Your task to perform on an android device: Search for custom wallets on etsy. Image 0: 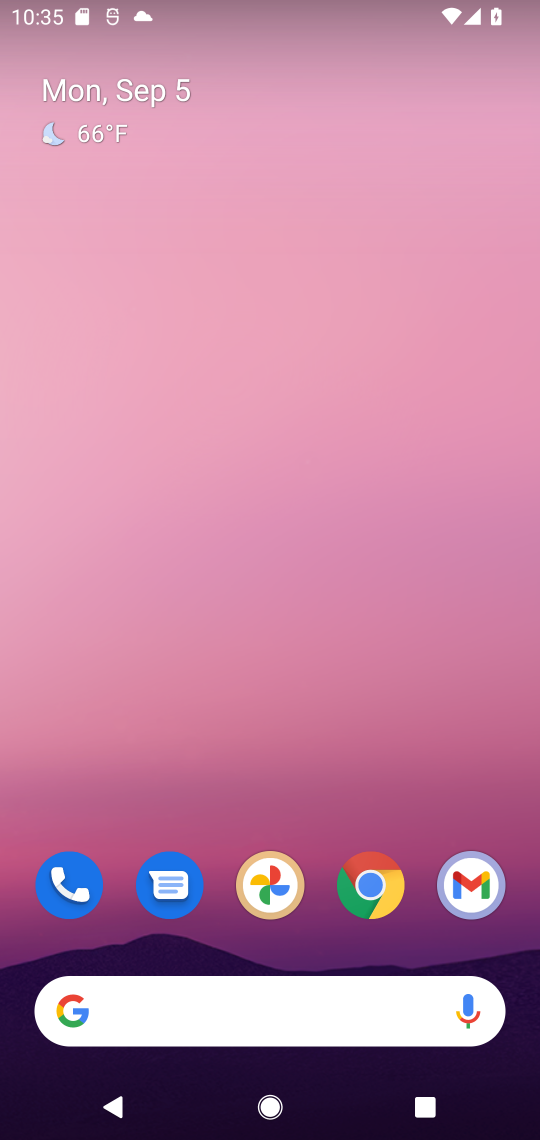
Step 0: click (377, 885)
Your task to perform on an android device: Search for custom wallets on etsy. Image 1: 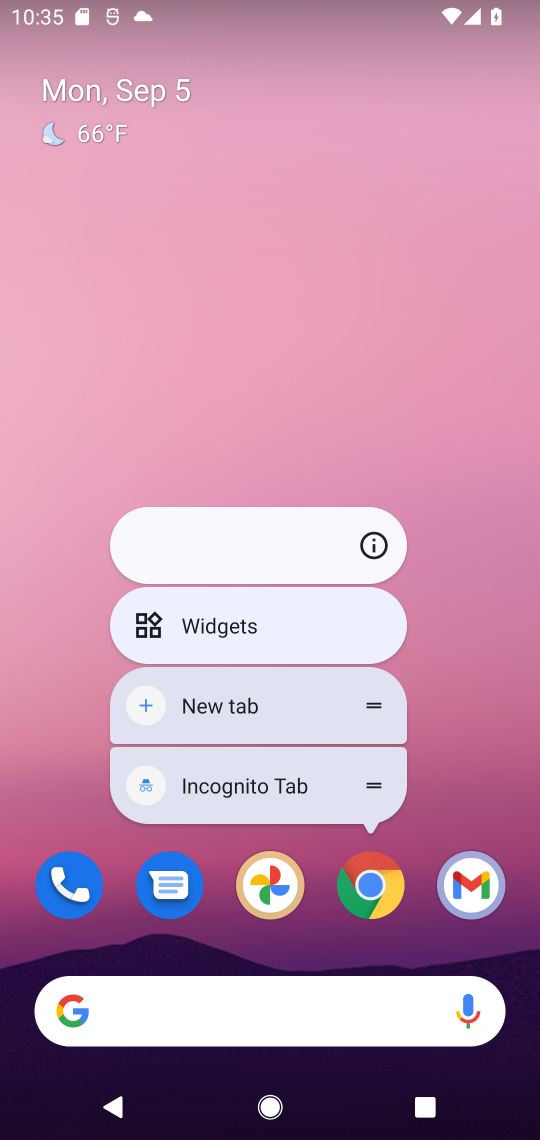
Step 1: click (371, 878)
Your task to perform on an android device: Search for custom wallets on etsy. Image 2: 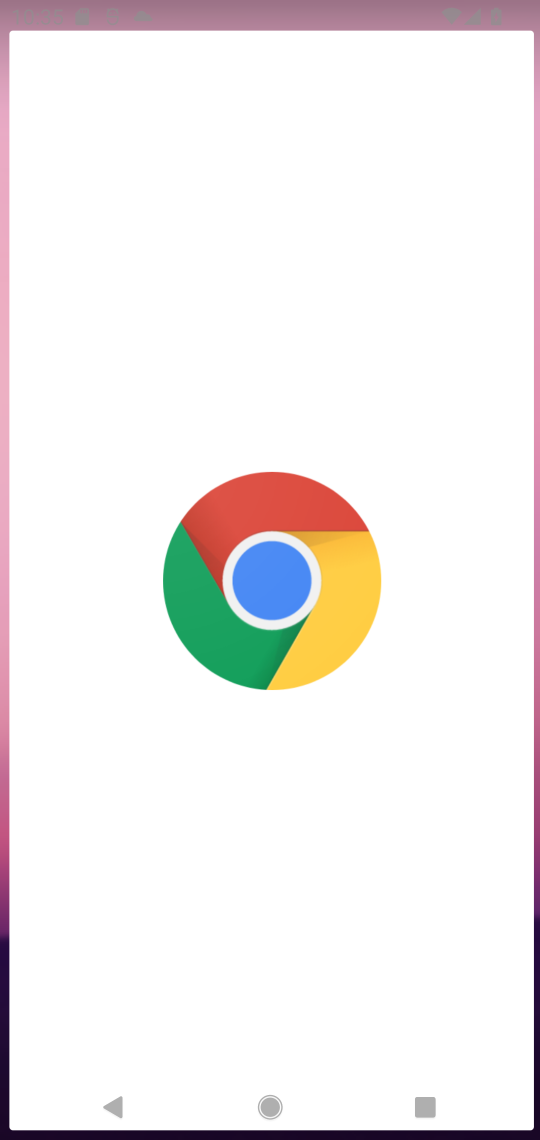
Step 2: click (372, 877)
Your task to perform on an android device: Search for custom wallets on etsy. Image 3: 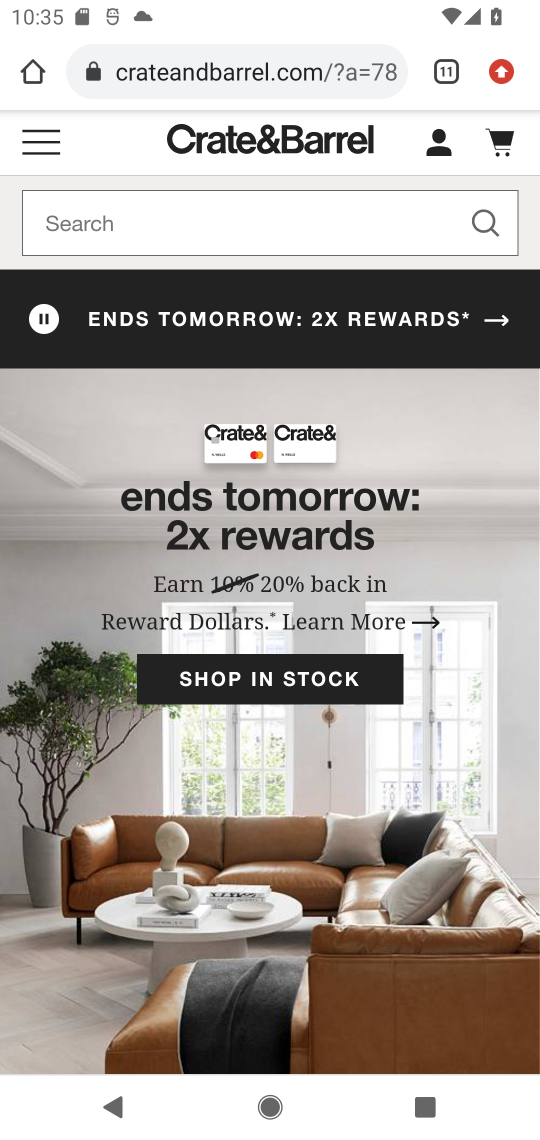
Step 3: click (417, 217)
Your task to perform on an android device: Search for custom wallets on etsy. Image 4: 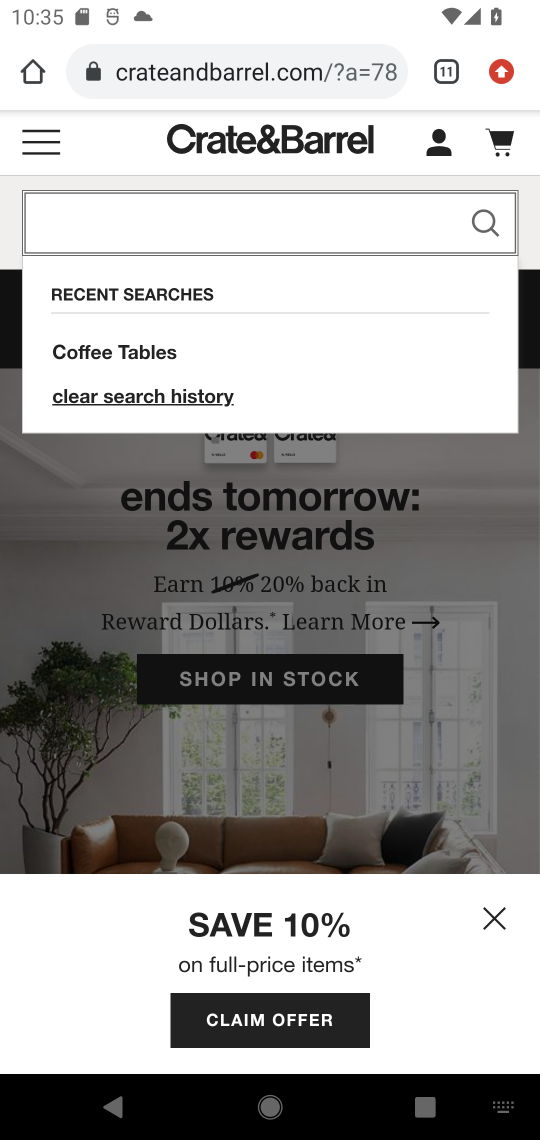
Step 4: type "custom wallets"
Your task to perform on an android device: Search for custom wallets on etsy. Image 5: 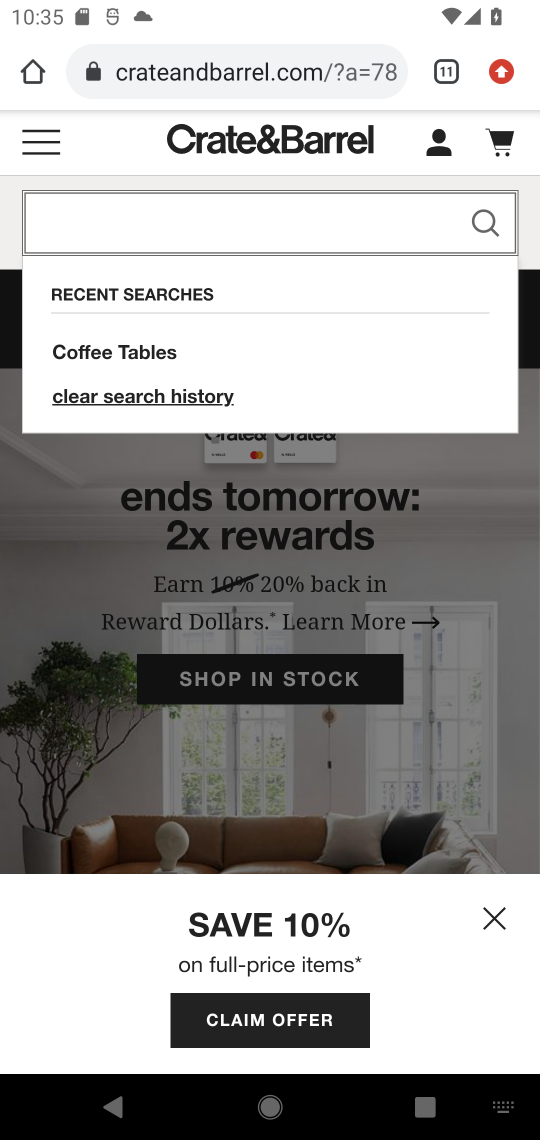
Step 5: type ""
Your task to perform on an android device: Search for custom wallets on etsy. Image 6: 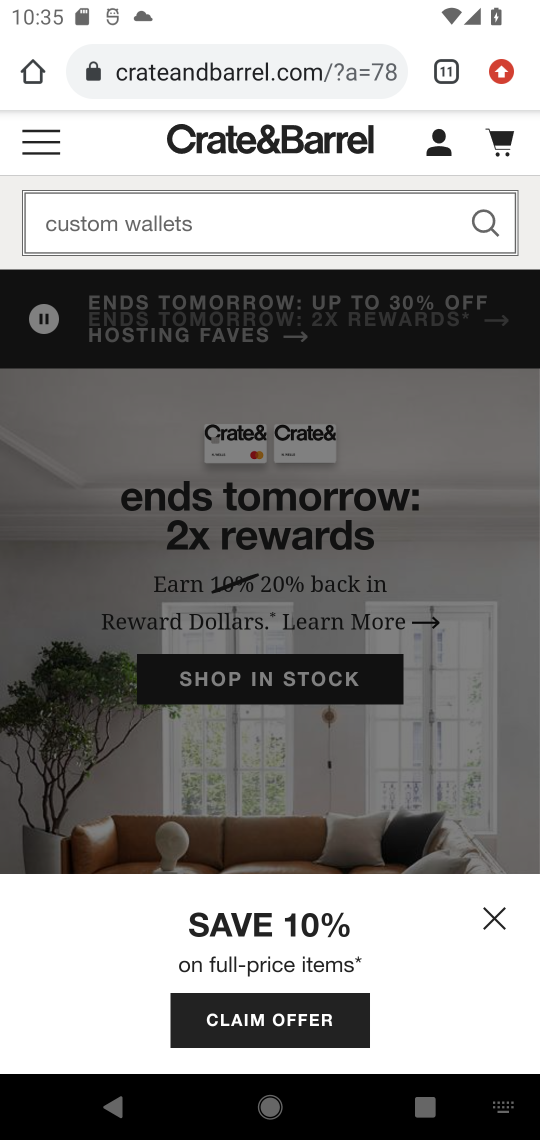
Step 6: click (480, 216)
Your task to perform on an android device: Search for custom wallets on etsy. Image 7: 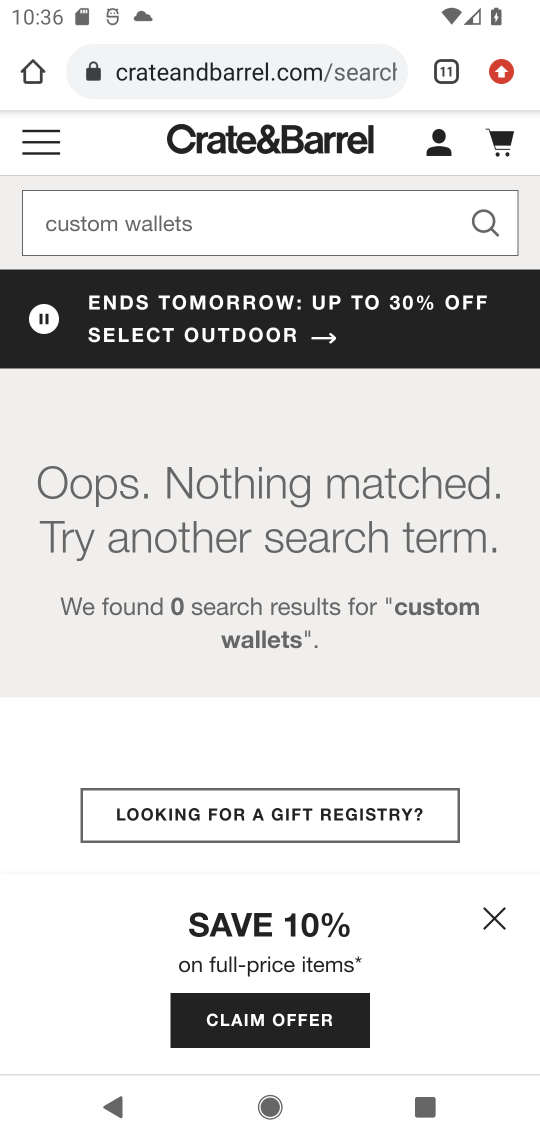
Step 7: drag from (500, 71) to (266, 253)
Your task to perform on an android device: Search for custom wallets on etsy. Image 8: 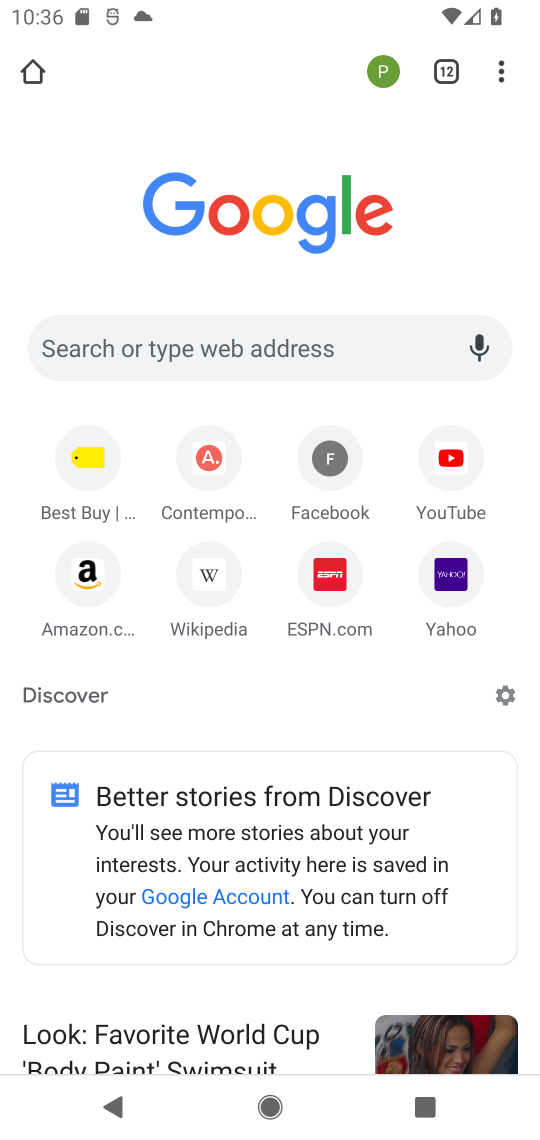
Step 8: click (188, 341)
Your task to perform on an android device: Search for custom wallets on etsy. Image 9: 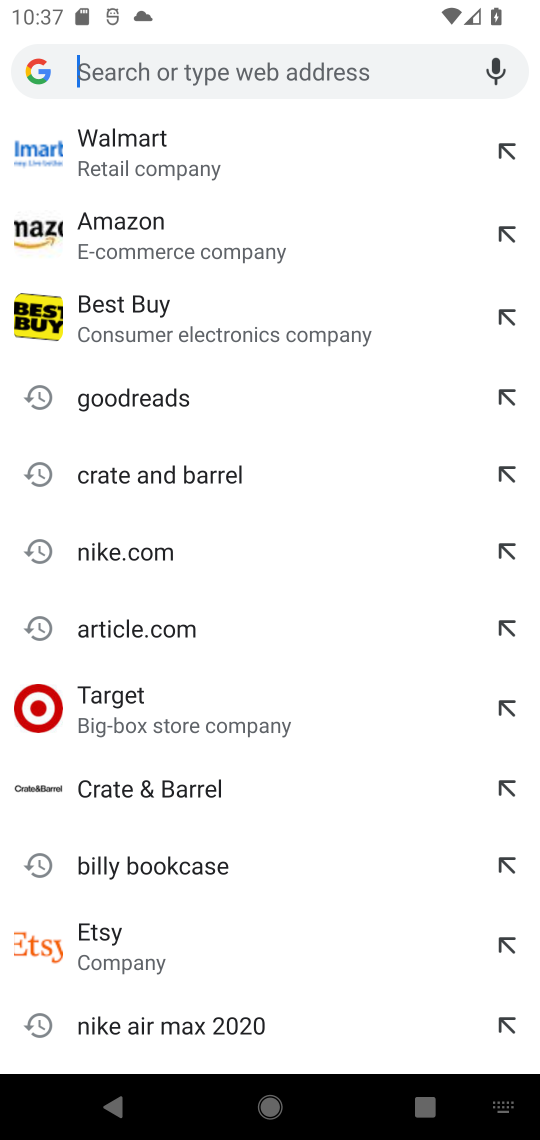
Step 9: type "etsy"
Your task to perform on an android device: Search for custom wallets on etsy. Image 10: 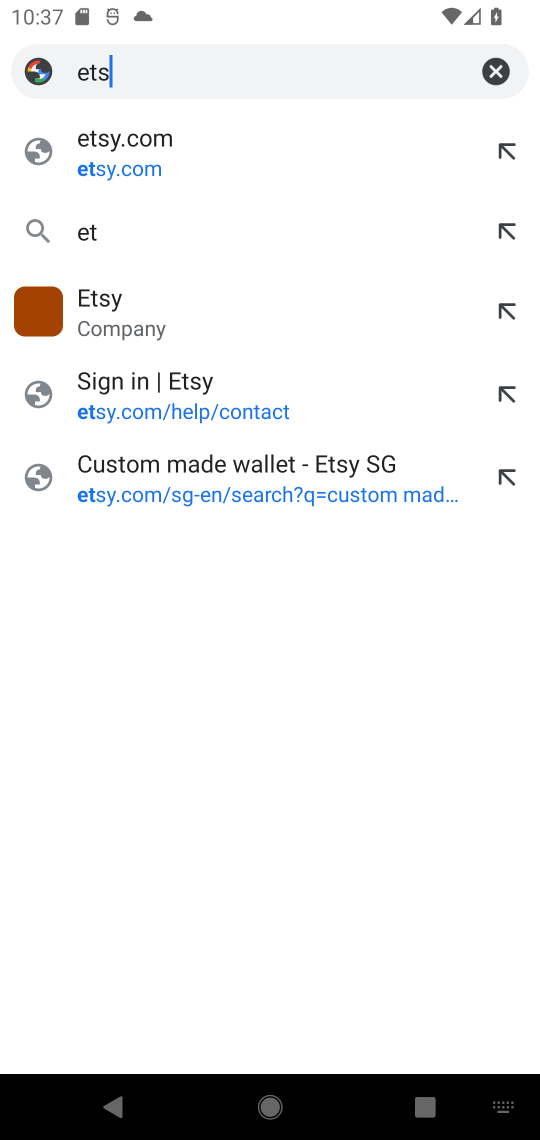
Step 10: type ""
Your task to perform on an android device: Search for custom wallets on etsy. Image 11: 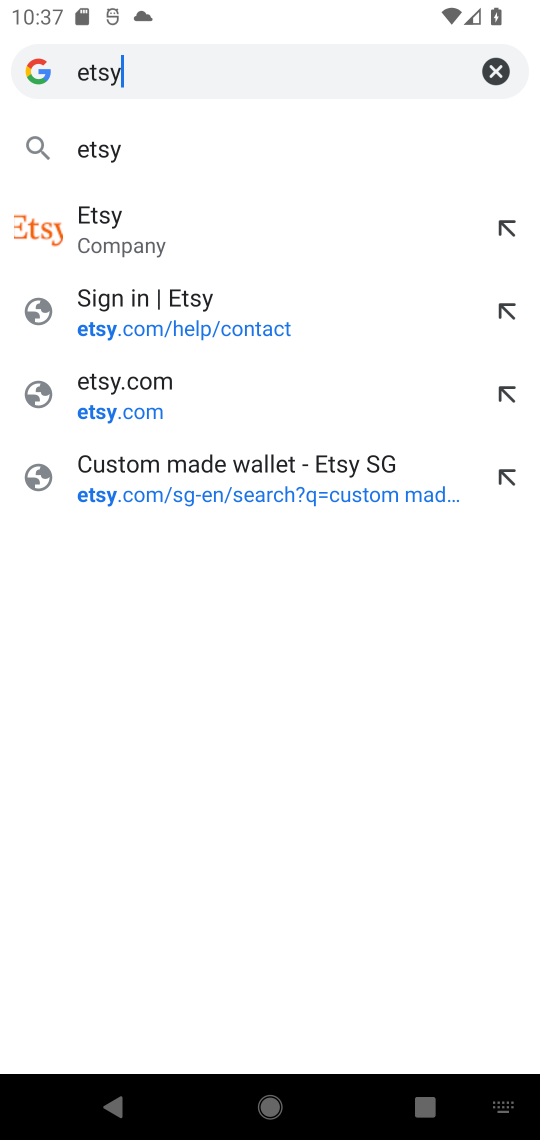
Step 11: click (103, 145)
Your task to perform on an android device: Search for custom wallets on etsy. Image 12: 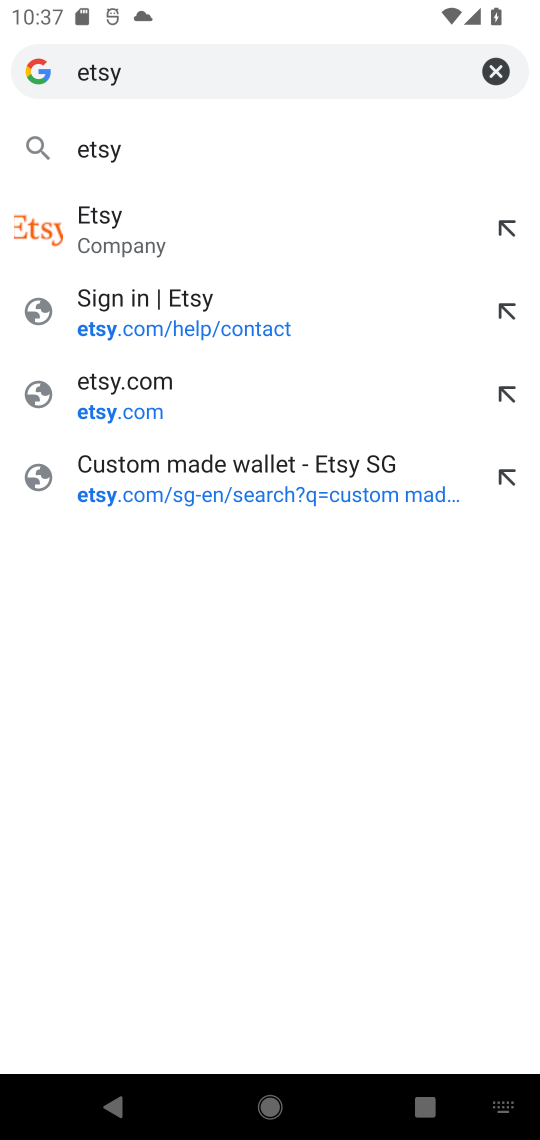
Step 12: click (97, 149)
Your task to perform on an android device: Search for custom wallets on etsy. Image 13: 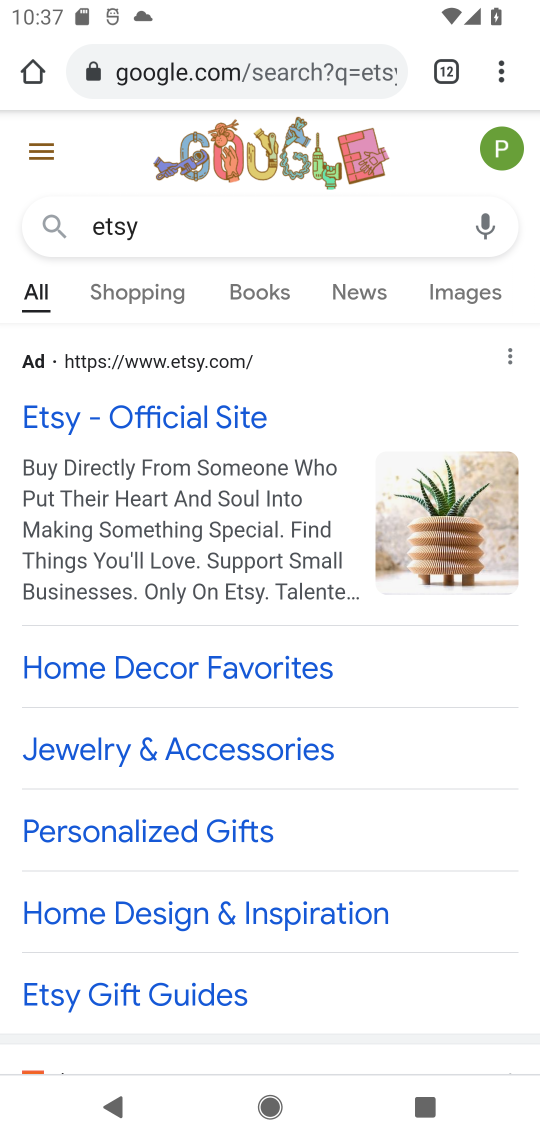
Step 13: click (145, 404)
Your task to perform on an android device: Search for custom wallets on etsy. Image 14: 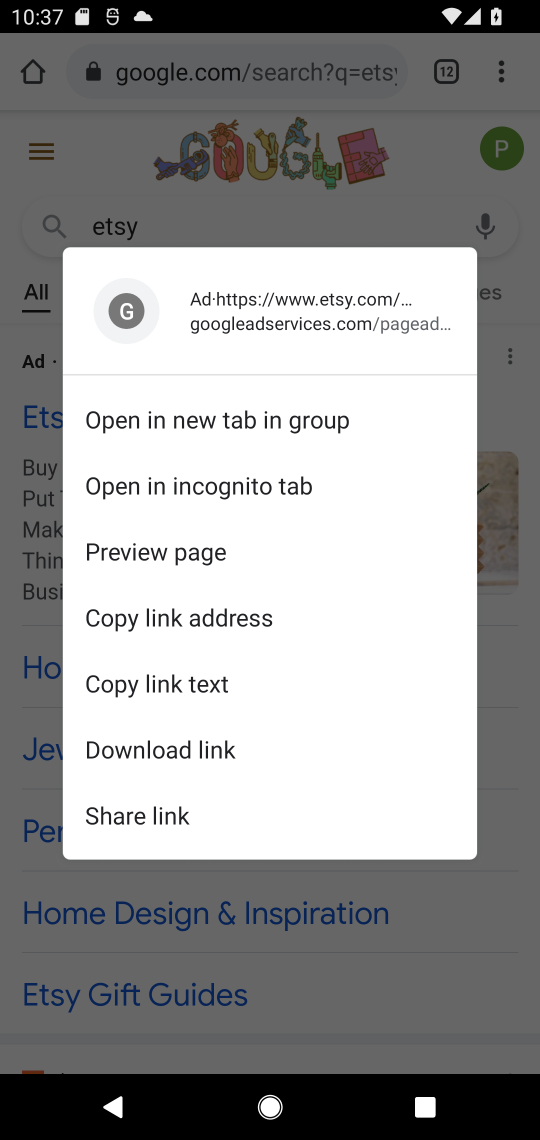
Step 14: click (52, 413)
Your task to perform on an android device: Search for custom wallets on etsy. Image 15: 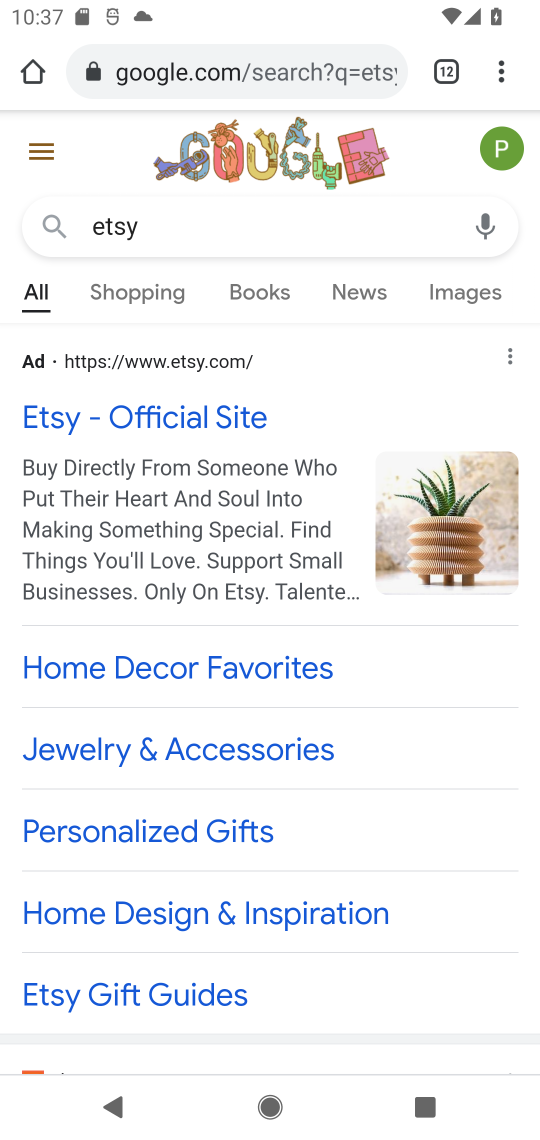
Step 15: click (59, 413)
Your task to perform on an android device: Search for custom wallets on etsy. Image 16: 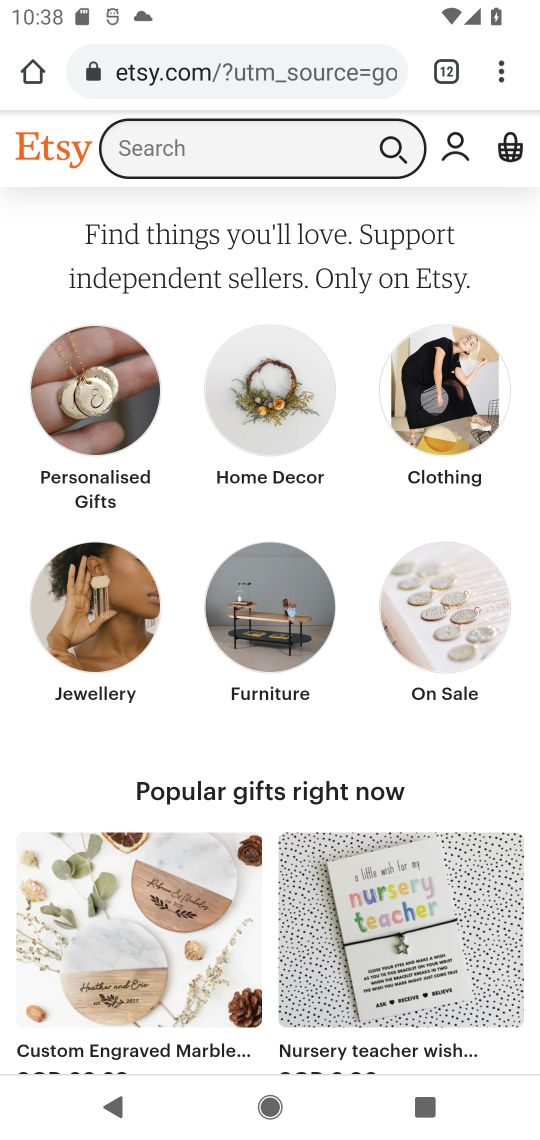
Step 16: click (249, 147)
Your task to perform on an android device: Search for custom wallets on etsy. Image 17: 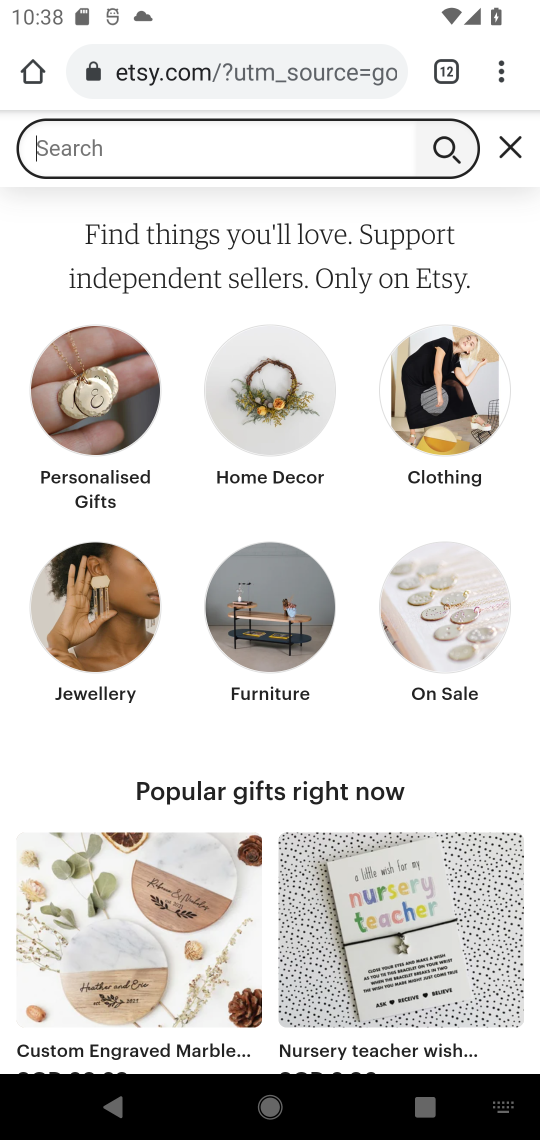
Step 17: type "custom wallets"
Your task to perform on an android device: Search for custom wallets on etsy. Image 18: 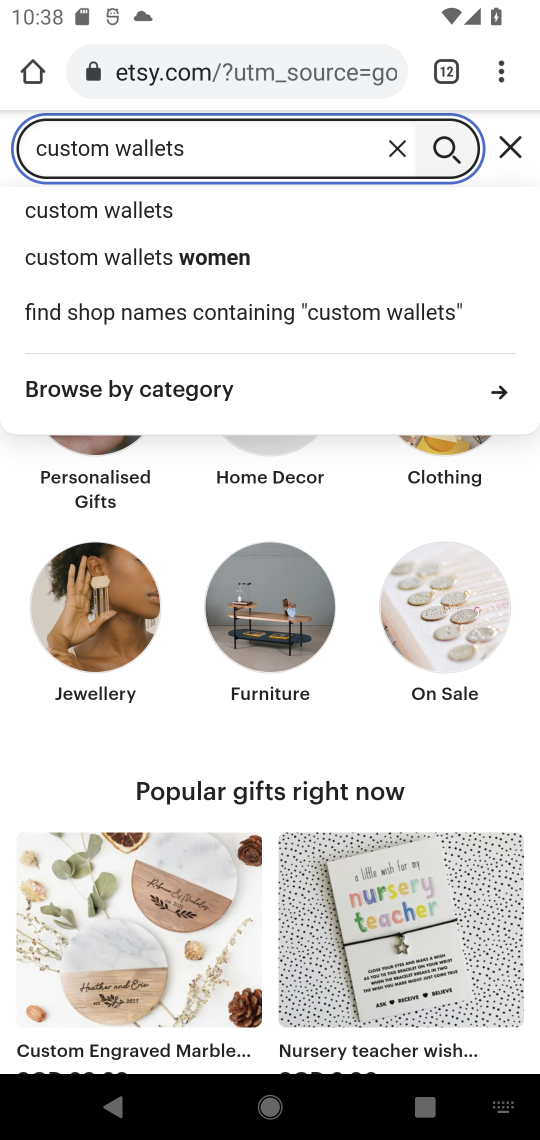
Step 18: click (131, 217)
Your task to perform on an android device: Search for custom wallets on etsy. Image 19: 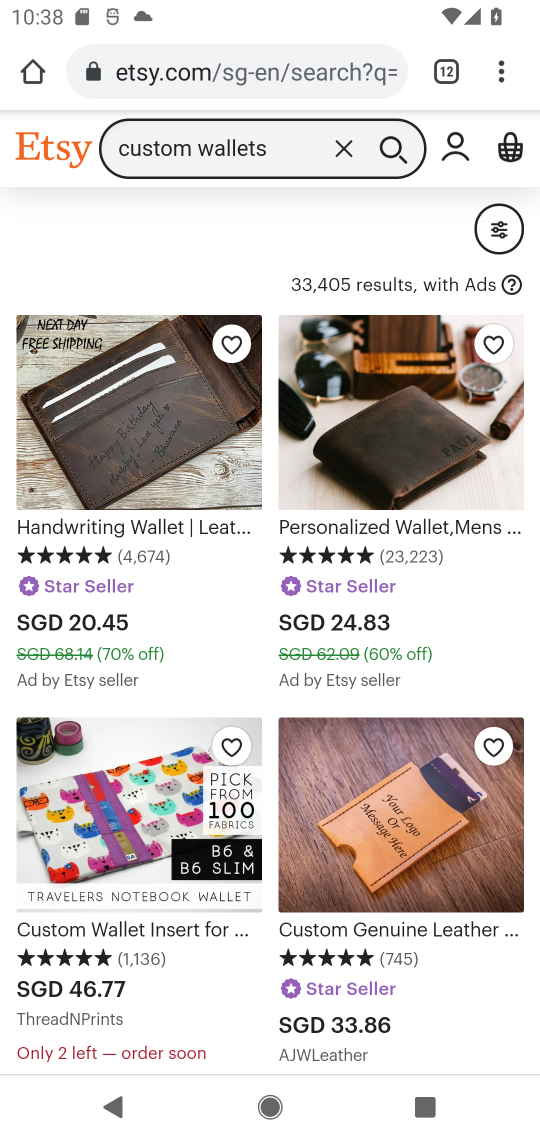
Step 19: task complete